Your task to perform on an android device: delete browsing data in the chrome app Image 0: 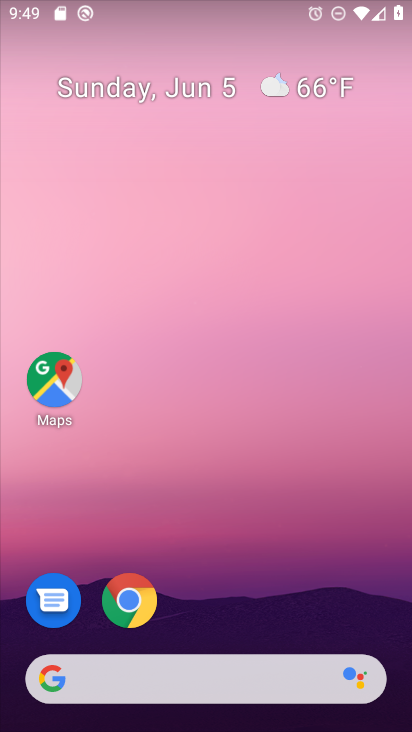
Step 0: drag from (371, 519) to (350, 287)
Your task to perform on an android device: delete browsing data in the chrome app Image 1: 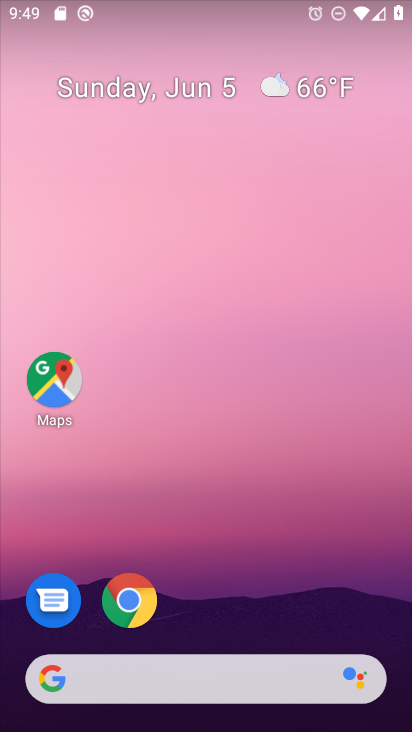
Step 1: click (359, 615)
Your task to perform on an android device: delete browsing data in the chrome app Image 2: 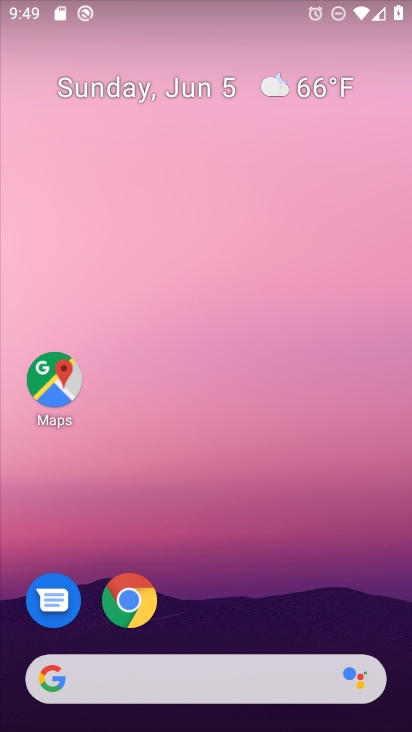
Step 2: click (226, 93)
Your task to perform on an android device: delete browsing data in the chrome app Image 3: 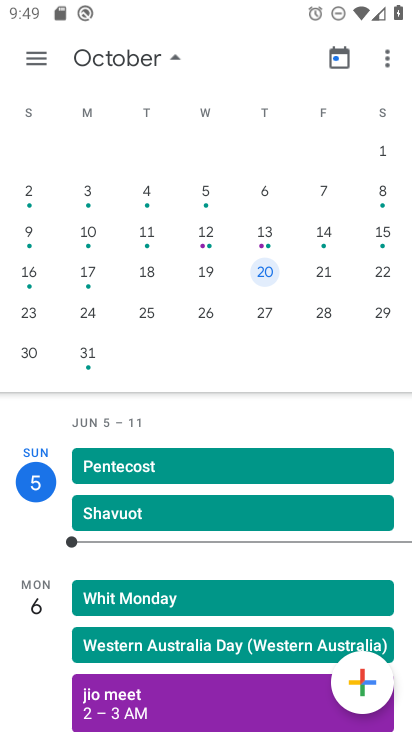
Step 3: press home button
Your task to perform on an android device: delete browsing data in the chrome app Image 4: 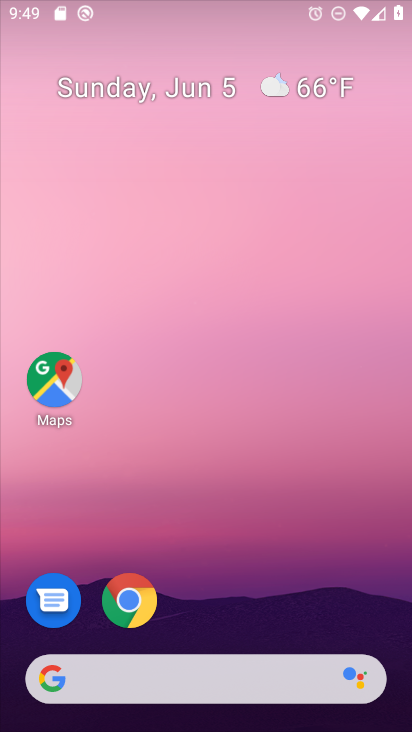
Step 4: drag from (391, 664) to (259, 57)
Your task to perform on an android device: delete browsing data in the chrome app Image 5: 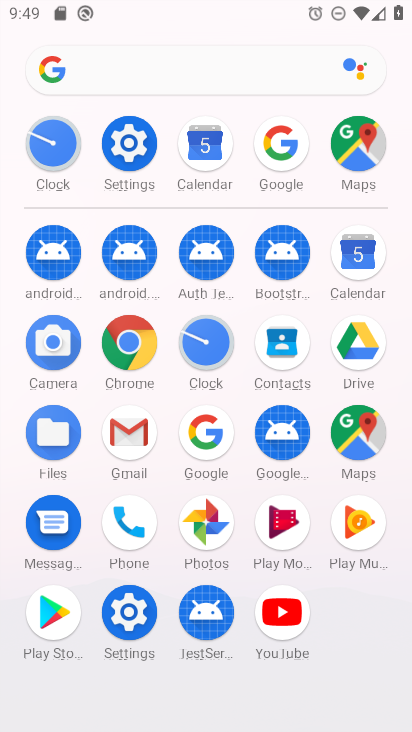
Step 5: click (104, 331)
Your task to perform on an android device: delete browsing data in the chrome app Image 6: 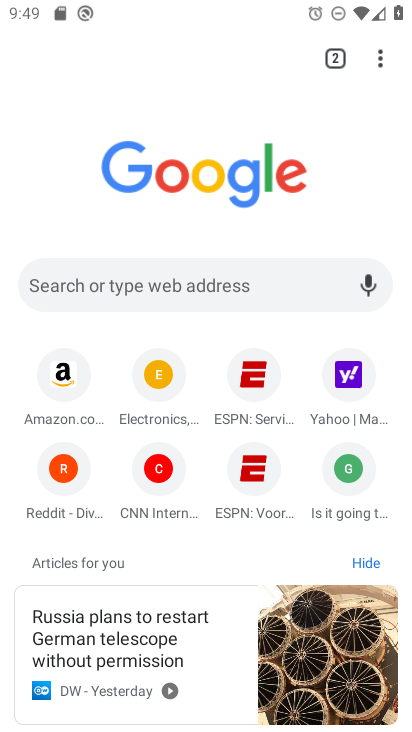
Step 6: click (384, 54)
Your task to perform on an android device: delete browsing data in the chrome app Image 7: 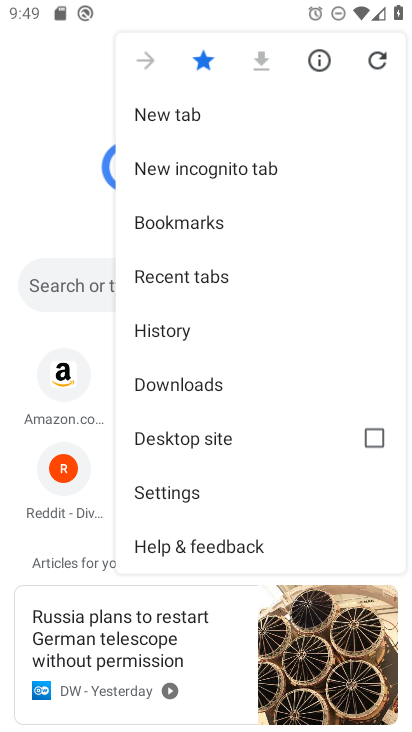
Step 7: click (140, 325)
Your task to perform on an android device: delete browsing data in the chrome app Image 8: 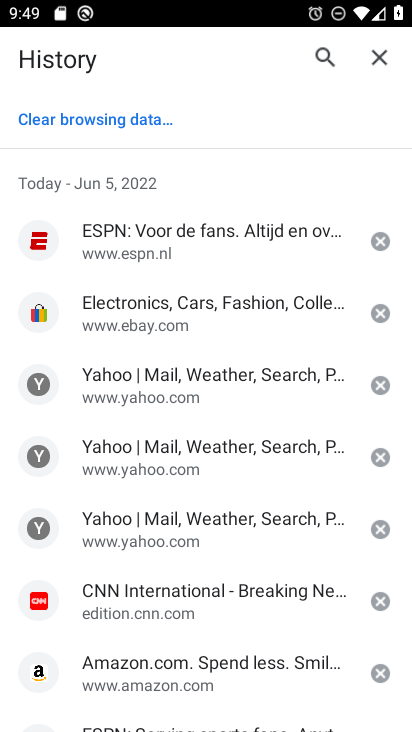
Step 8: click (88, 130)
Your task to perform on an android device: delete browsing data in the chrome app Image 9: 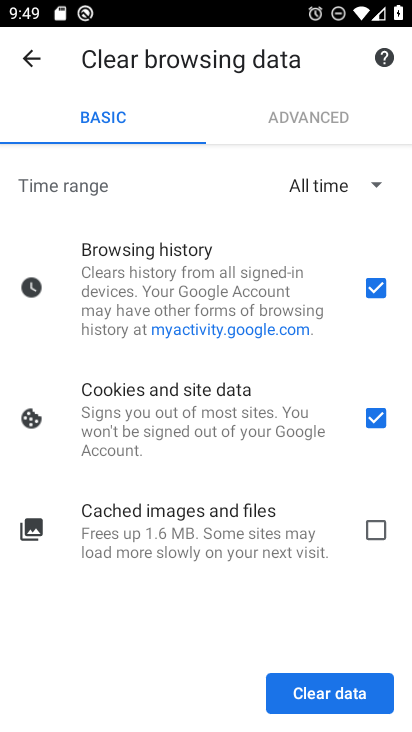
Step 9: click (317, 708)
Your task to perform on an android device: delete browsing data in the chrome app Image 10: 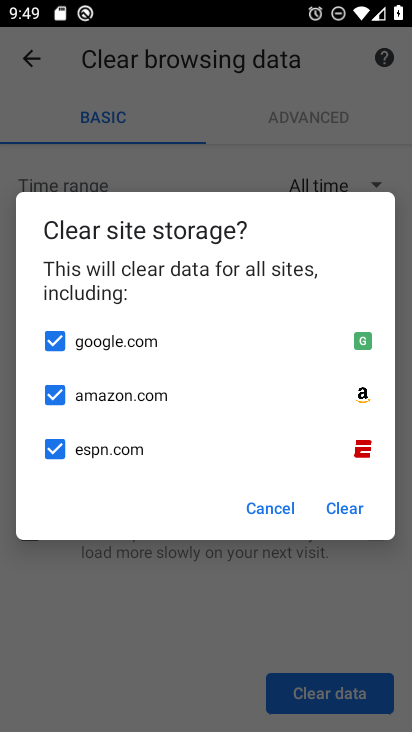
Step 10: click (348, 509)
Your task to perform on an android device: delete browsing data in the chrome app Image 11: 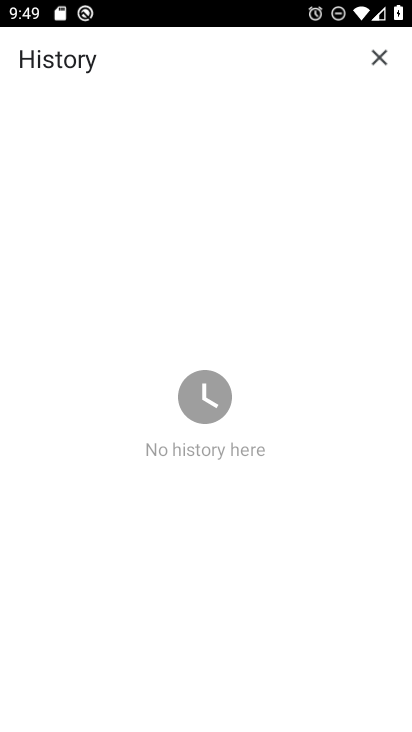
Step 11: task complete